Your task to perform on an android device: Go to Android settings Image 0: 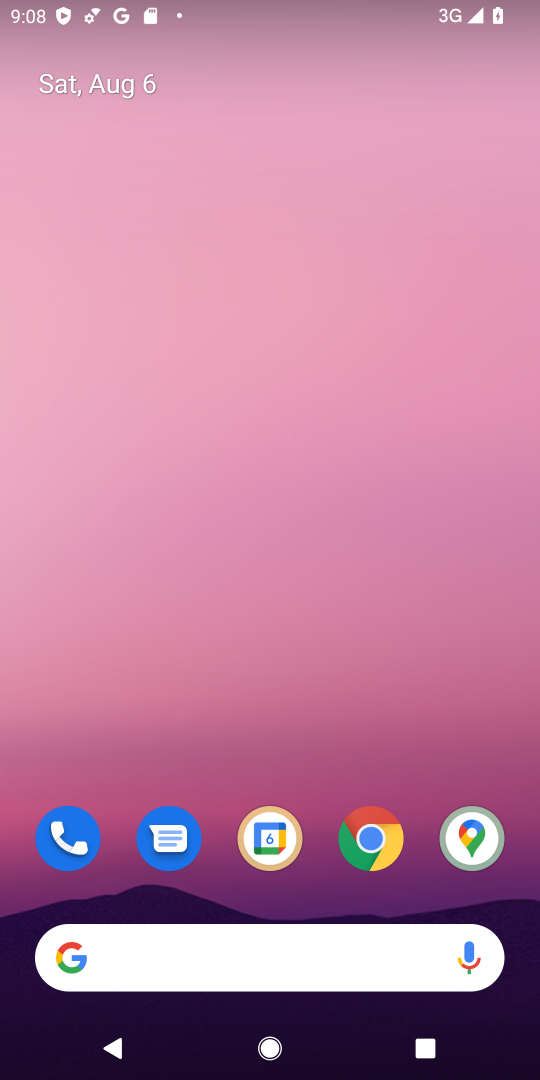
Step 0: drag from (410, 809) to (347, 243)
Your task to perform on an android device: Go to Android settings Image 1: 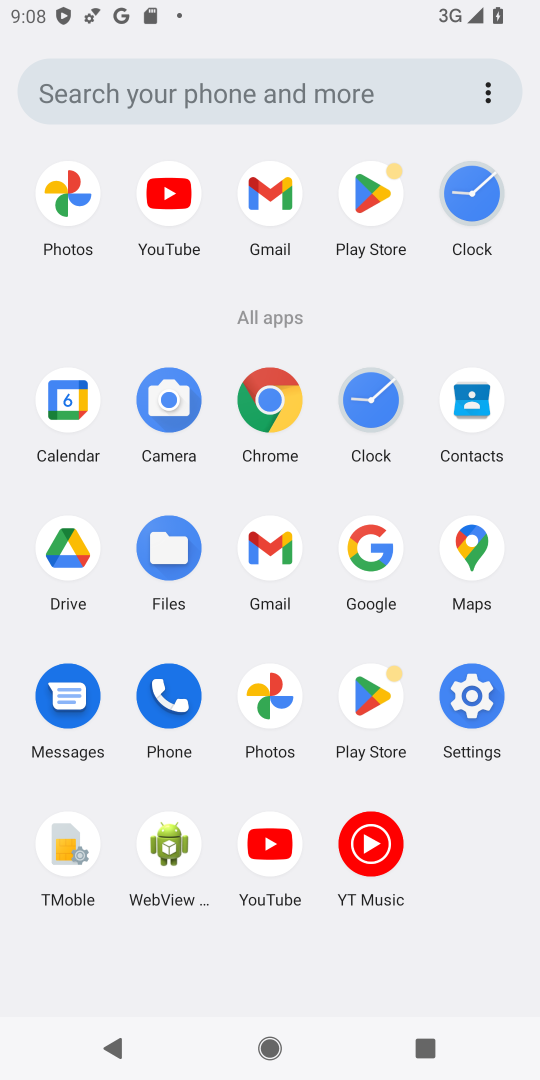
Step 1: click (462, 720)
Your task to perform on an android device: Go to Android settings Image 2: 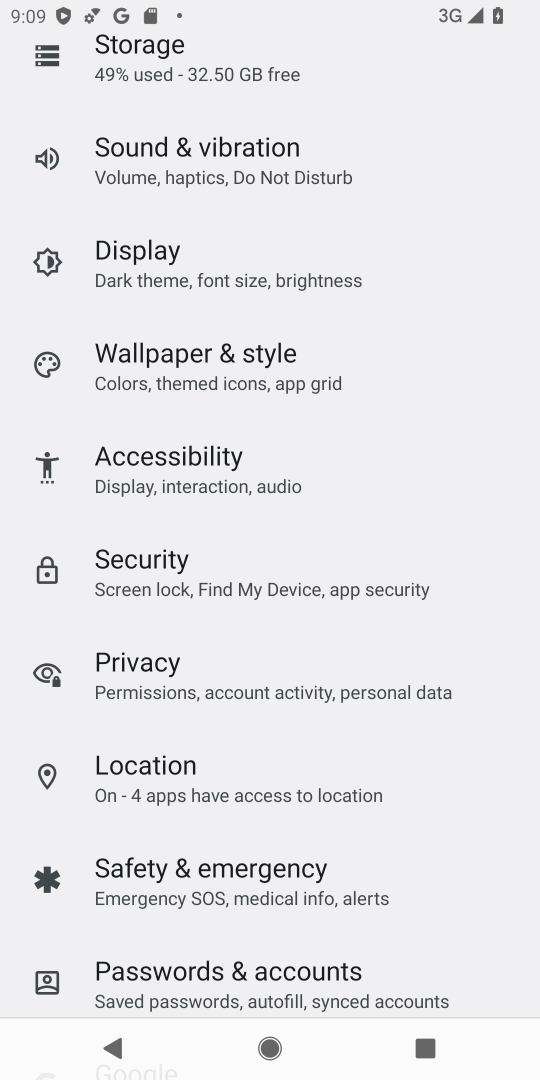
Step 2: task complete